Your task to perform on an android device: Go to Yahoo.com Image 0: 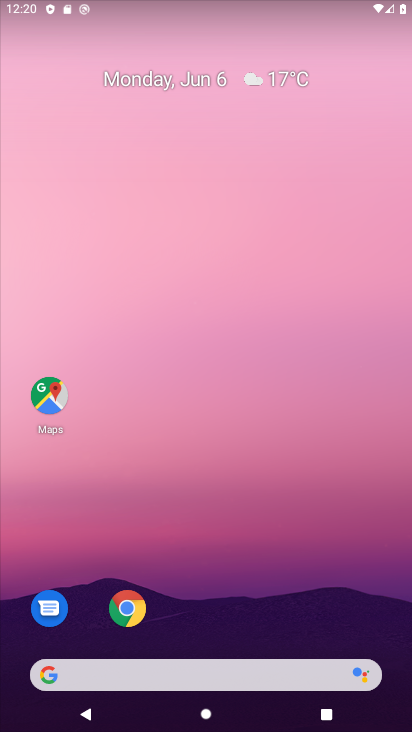
Step 0: click (115, 613)
Your task to perform on an android device: Go to Yahoo.com Image 1: 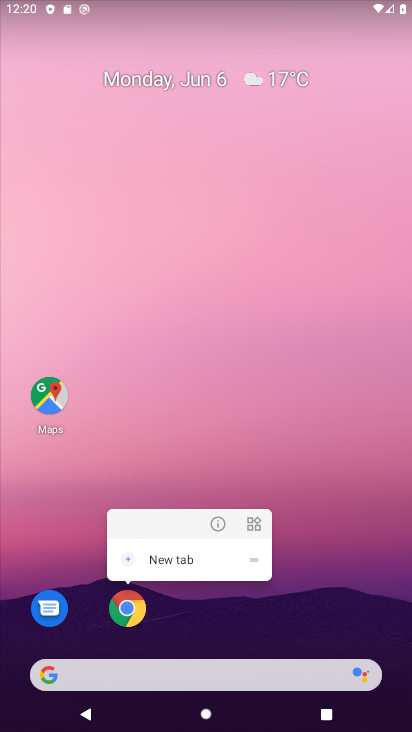
Step 1: drag from (206, 656) to (177, 380)
Your task to perform on an android device: Go to Yahoo.com Image 2: 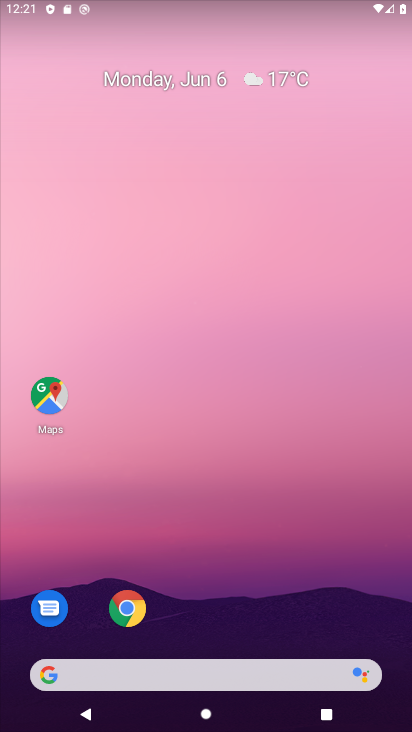
Step 2: click (124, 612)
Your task to perform on an android device: Go to Yahoo.com Image 3: 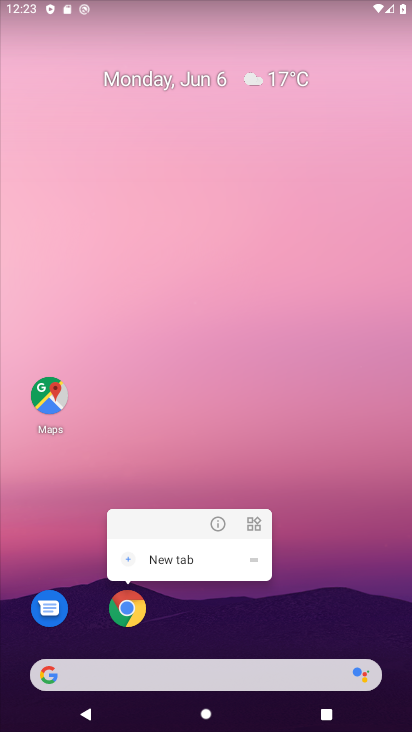
Step 3: click (124, 612)
Your task to perform on an android device: Go to Yahoo.com Image 4: 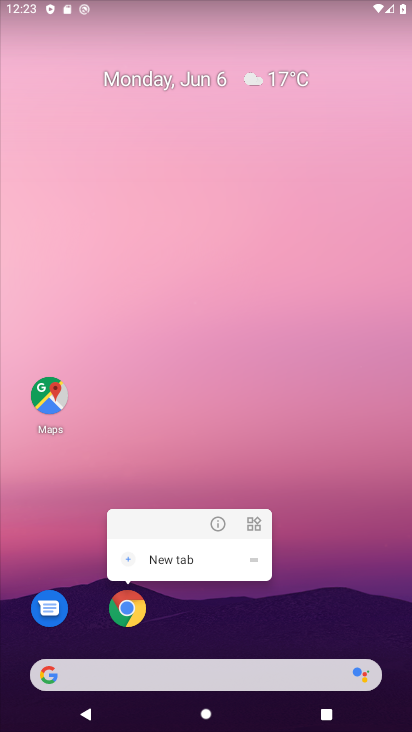
Step 4: click (130, 607)
Your task to perform on an android device: Go to Yahoo.com Image 5: 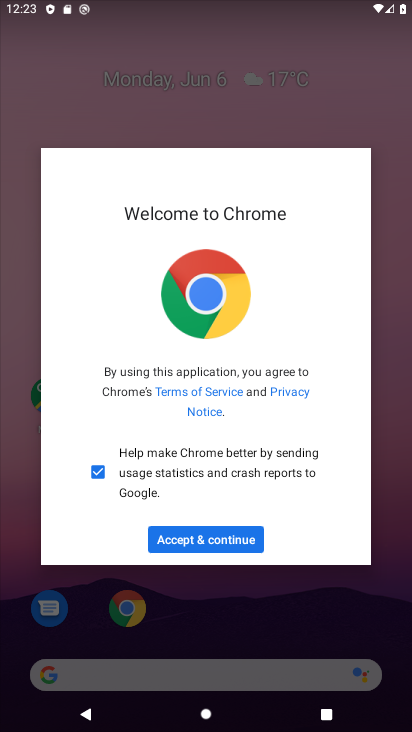
Step 5: click (153, 545)
Your task to perform on an android device: Go to Yahoo.com Image 6: 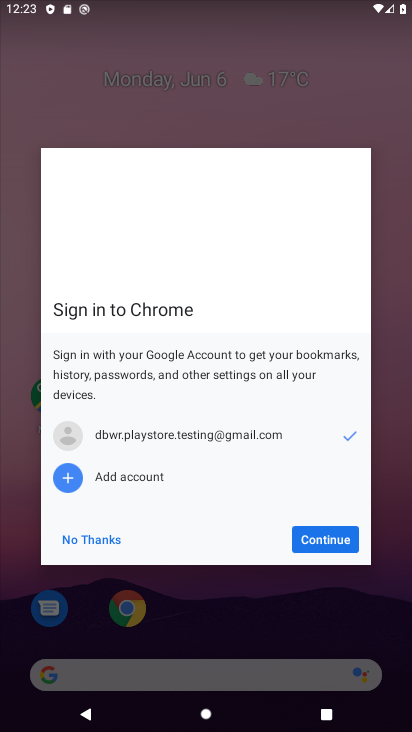
Step 6: click (325, 537)
Your task to perform on an android device: Go to Yahoo.com Image 7: 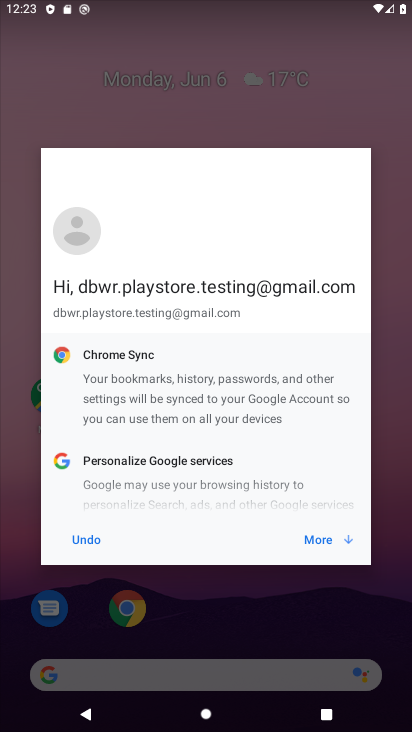
Step 7: click (325, 537)
Your task to perform on an android device: Go to Yahoo.com Image 8: 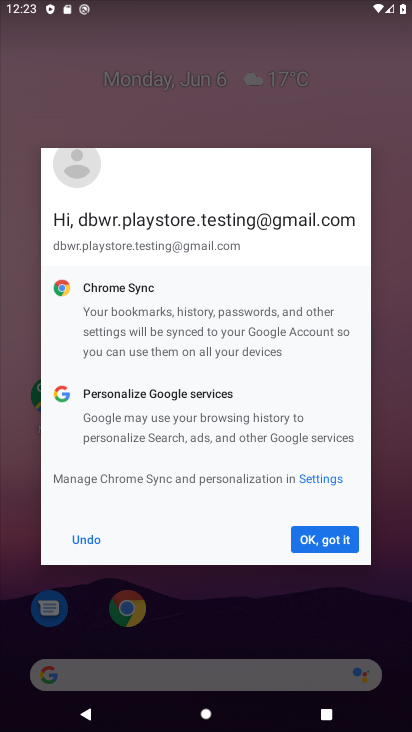
Step 8: click (325, 537)
Your task to perform on an android device: Go to Yahoo.com Image 9: 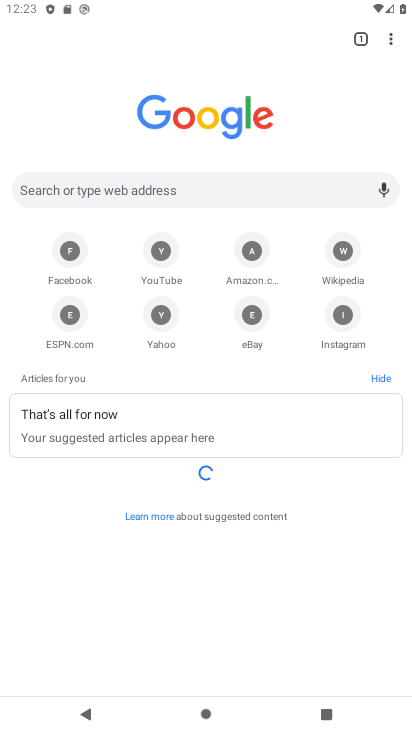
Step 9: click (161, 315)
Your task to perform on an android device: Go to Yahoo.com Image 10: 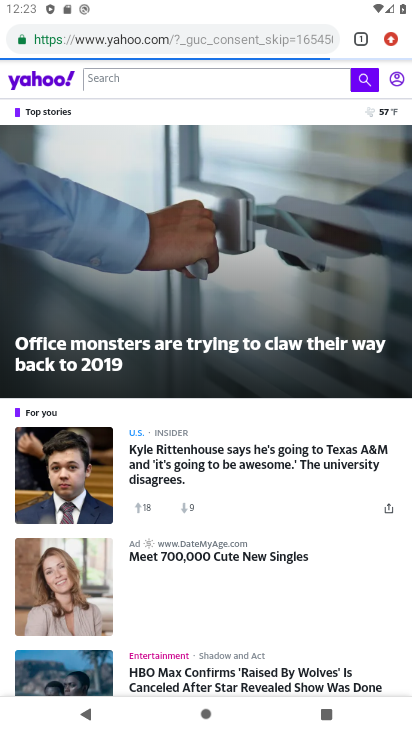
Step 10: task complete